Your task to perform on an android device: check out phone information Image 0: 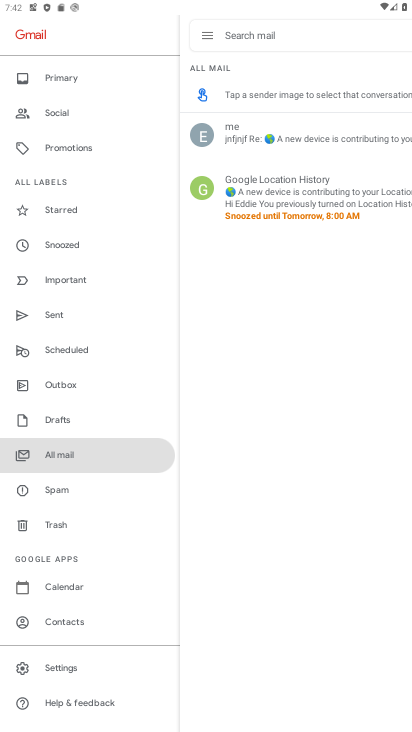
Step 0: press home button
Your task to perform on an android device: check out phone information Image 1: 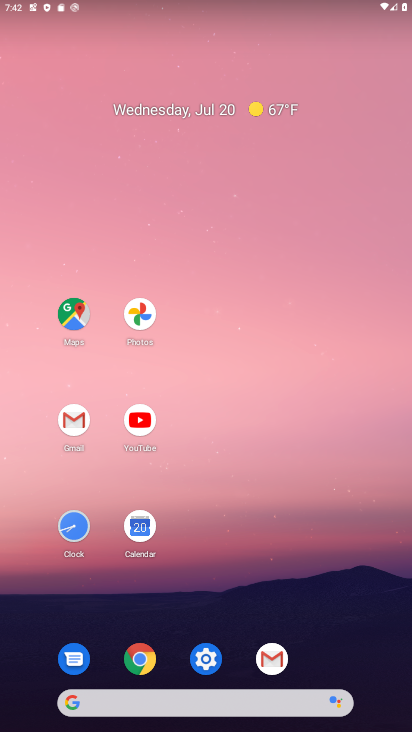
Step 1: click (200, 661)
Your task to perform on an android device: check out phone information Image 2: 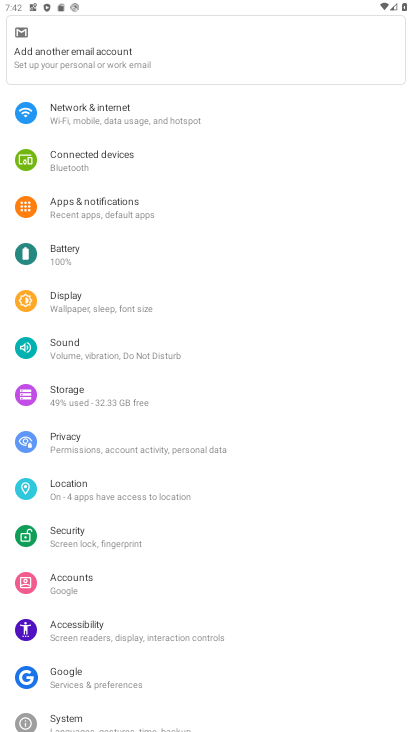
Step 2: drag from (249, 610) to (180, 76)
Your task to perform on an android device: check out phone information Image 3: 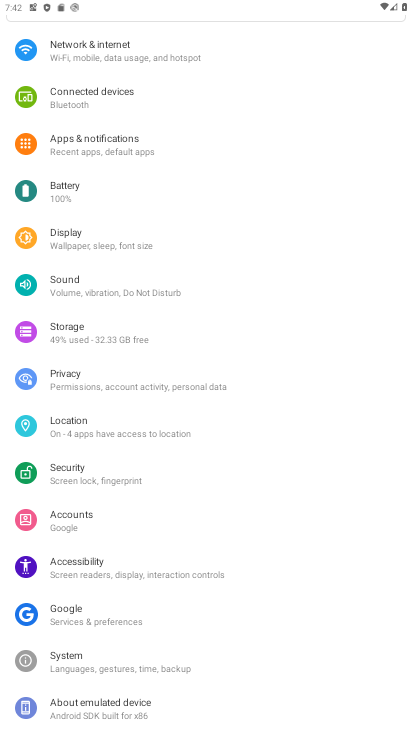
Step 3: click (105, 710)
Your task to perform on an android device: check out phone information Image 4: 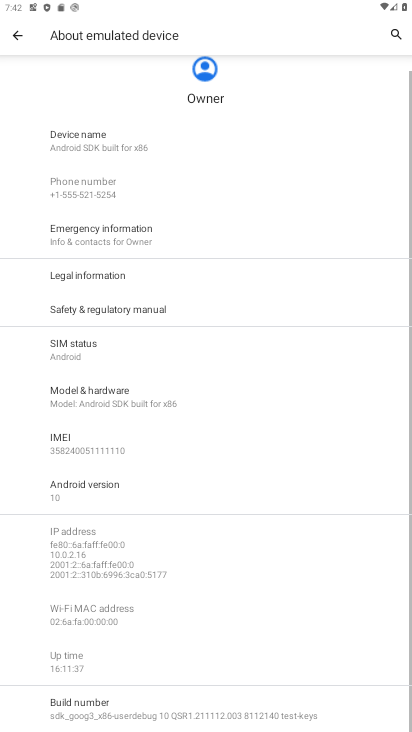
Step 4: task complete